Your task to perform on an android device: Open Reddit.com Image 0: 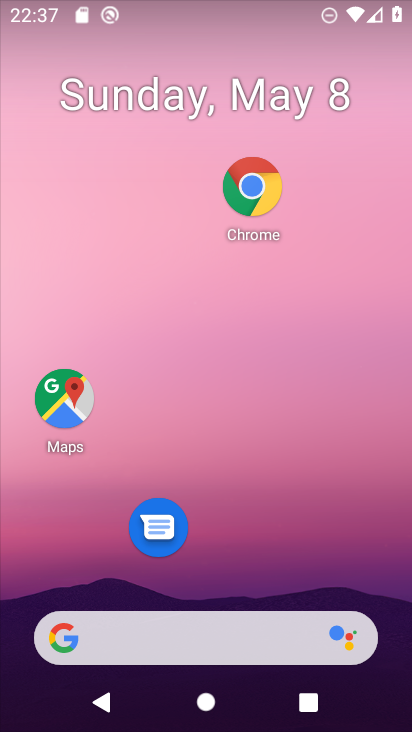
Step 0: drag from (277, 470) to (278, 313)
Your task to perform on an android device: Open Reddit.com Image 1: 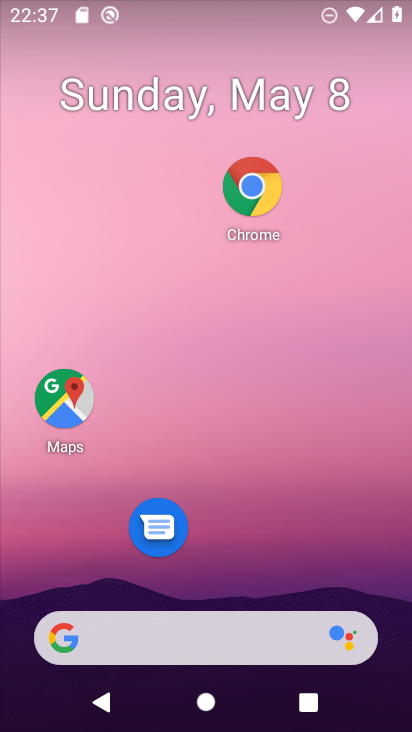
Step 1: drag from (298, 522) to (316, 303)
Your task to perform on an android device: Open Reddit.com Image 2: 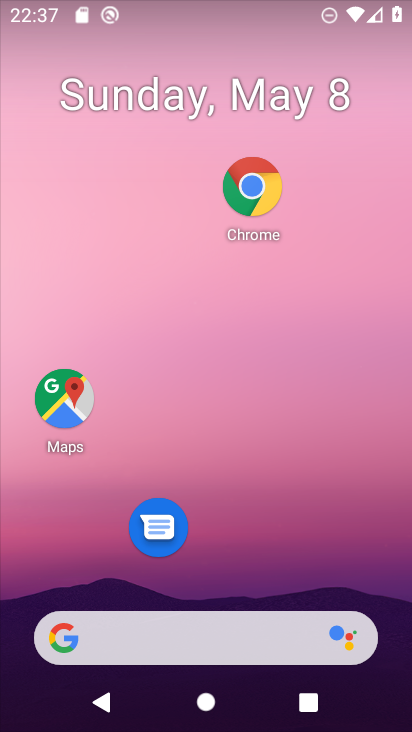
Step 2: drag from (282, 504) to (311, 133)
Your task to perform on an android device: Open Reddit.com Image 3: 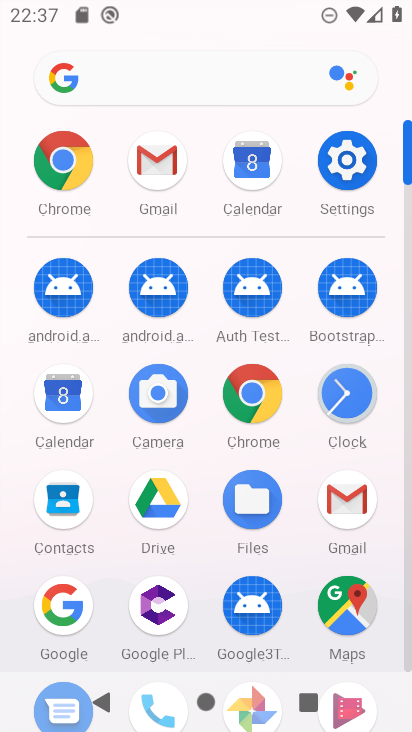
Step 3: click (259, 403)
Your task to perform on an android device: Open Reddit.com Image 4: 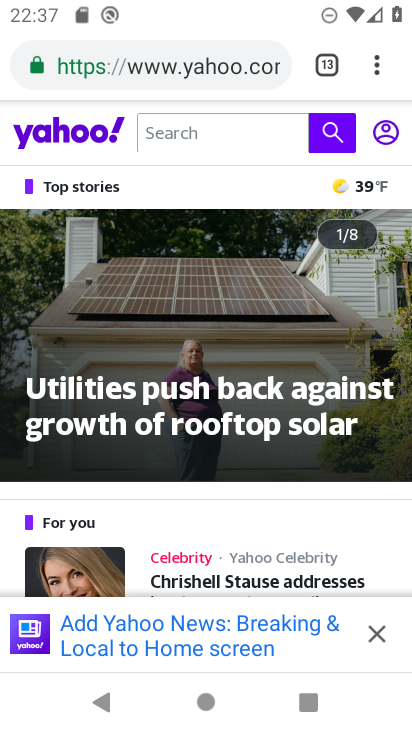
Step 4: click (366, 60)
Your task to perform on an android device: Open Reddit.com Image 5: 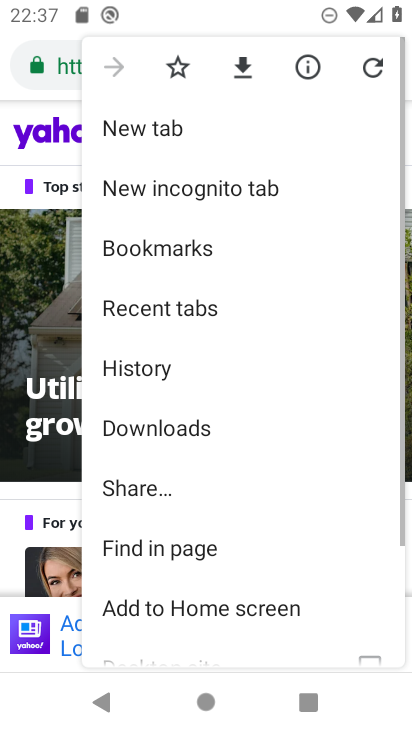
Step 5: click (167, 129)
Your task to perform on an android device: Open Reddit.com Image 6: 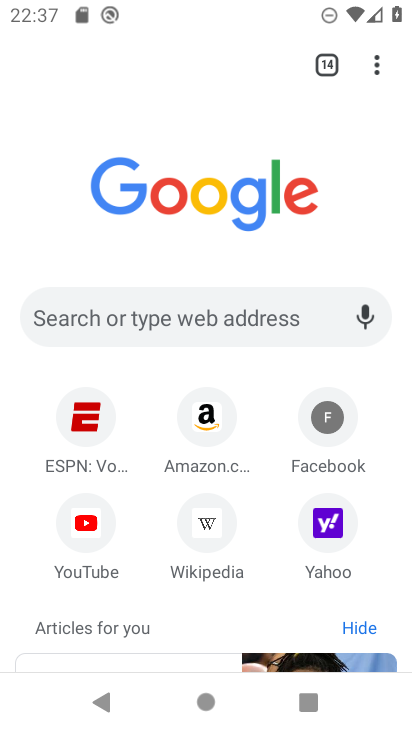
Step 6: click (161, 296)
Your task to perform on an android device: Open Reddit.com Image 7: 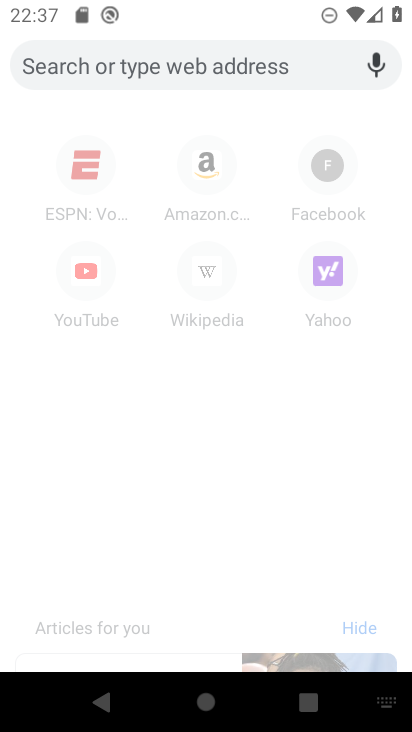
Step 7: type " Reddit.com"
Your task to perform on an android device: Open Reddit.com Image 8: 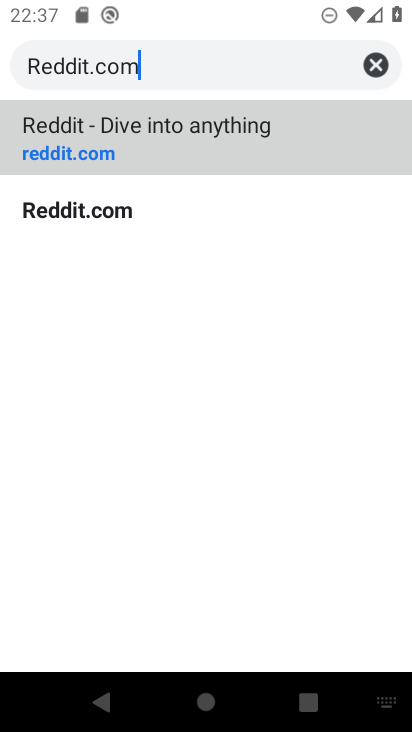
Step 8: click (142, 207)
Your task to perform on an android device: Open Reddit.com Image 9: 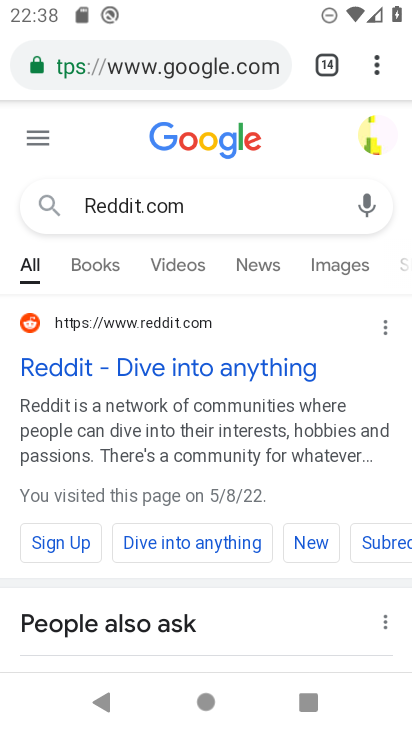
Step 9: task complete